Your task to perform on an android device: Clear the cart on target.com. Add usb-b to the cart on target.com, then select checkout. Image 0: 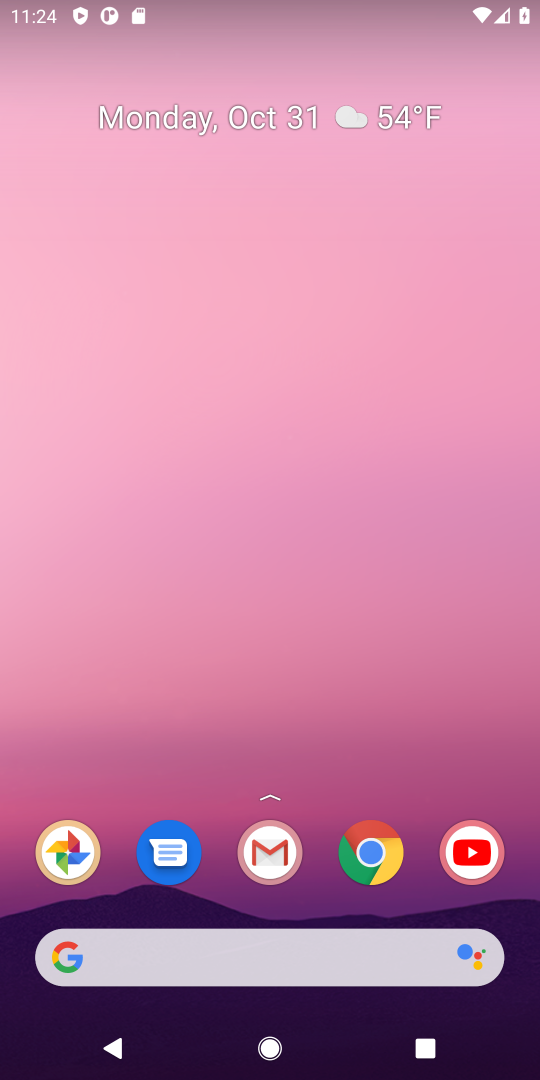
Step 0: click (386, 852)
Your task to perform on an android device: Clear the cart on target.com. Add usb-b to the cart on target.com, then select checkout. Image 1: 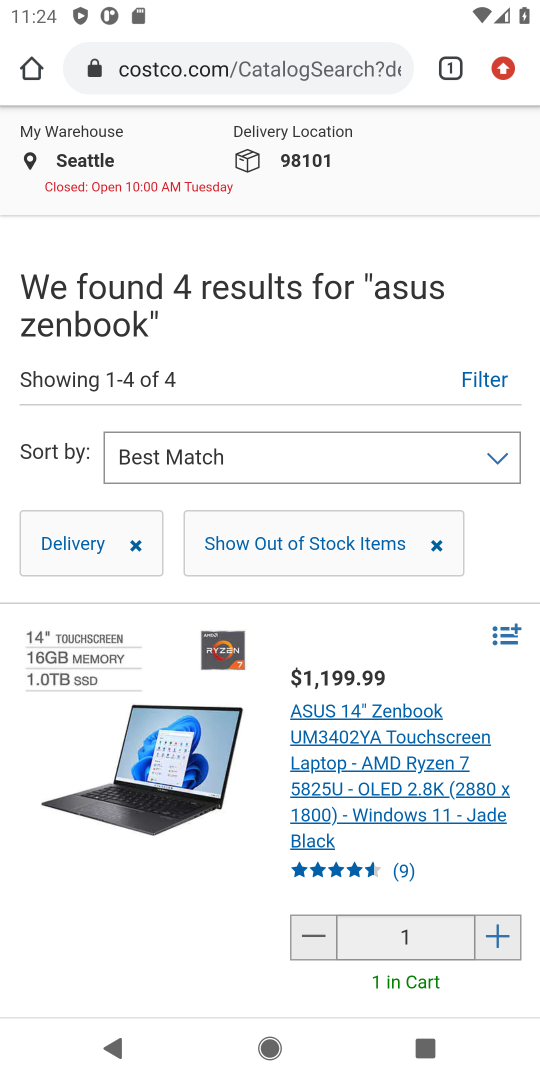
Step 1: click (268, 61)
Your task to perform on an android device: Clear the cart on target.com. Add usb-b to the cart on target.com, then select checkout. Image 2: 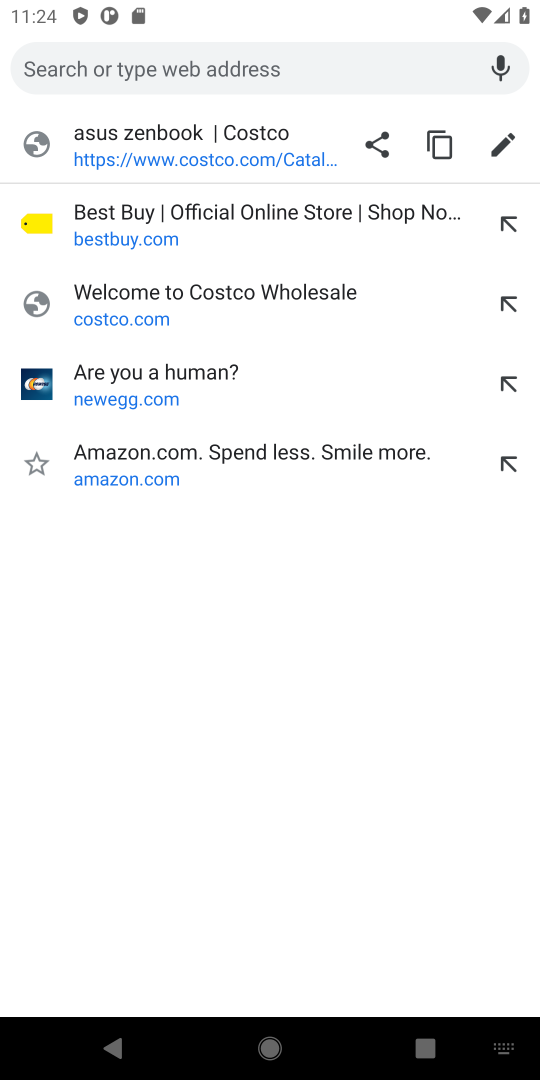
Step 2: type "target.com"
Your task to perform on an android device: Clear the cart on target.com. Add usb-b to the cart on target.com, then select checkout. Image 3: 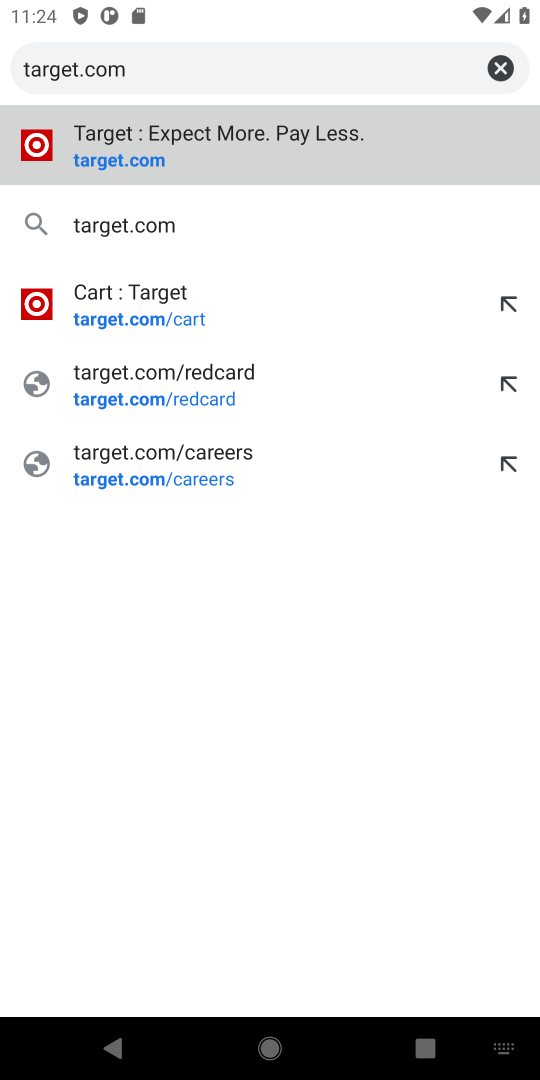
Step 3: press enter
Your task to perform on an android device: Clear the cart on target.com. Add usb-b to the cart on target.com, then select checkout. Image 4: 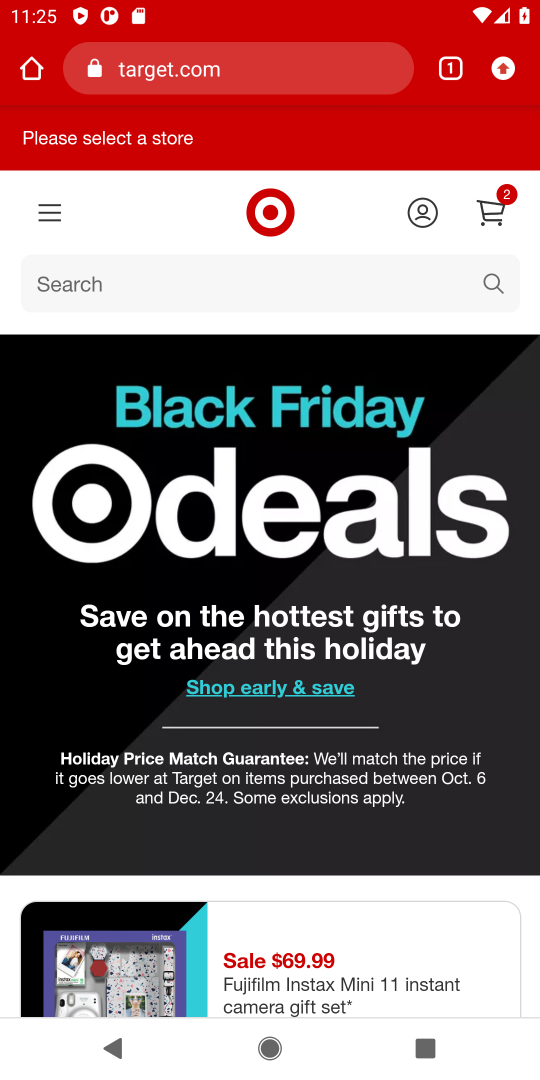
Step 4: click (206, 274)
Your task to perform on an android device: Clear the cart on target.com. Add usb-b to the cart on target.com, then select checkout. Image 5: 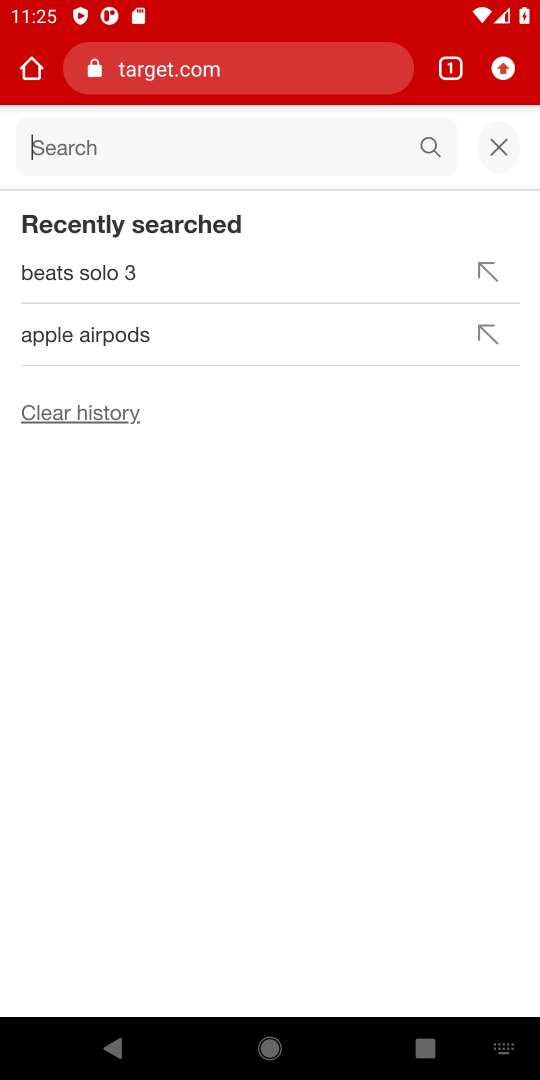
Step 5: type "usb-b"
Your task to perform on an android device: Clear the cart on target.com. Add usb-b to the cart on target.com, then select checkout. Image 6: 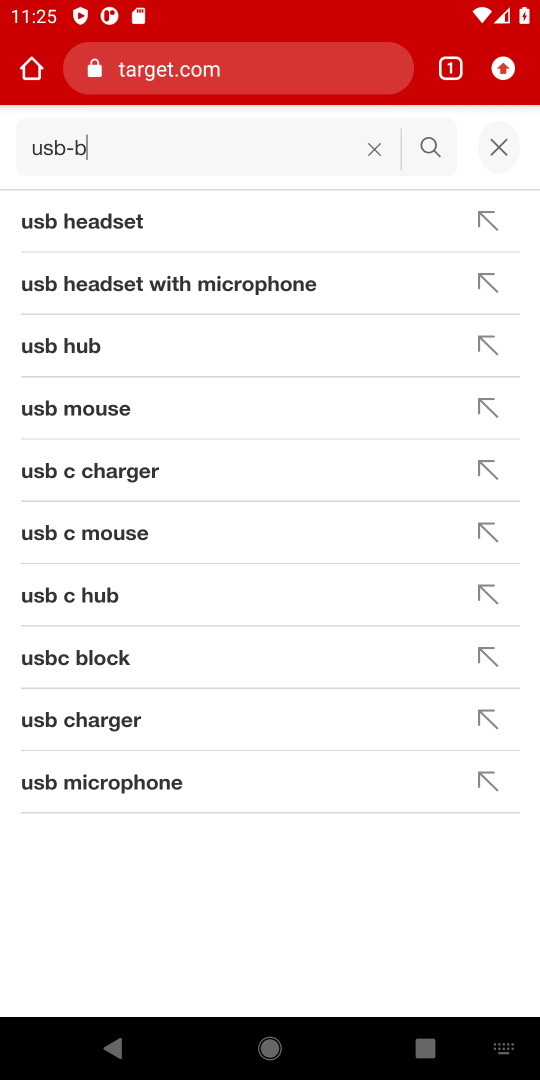
Step 6: type ""
Your task to perform on an android device: Clear the cart on target.com. Add usb-b to the cart on target.com, then select checkout. Image 7: 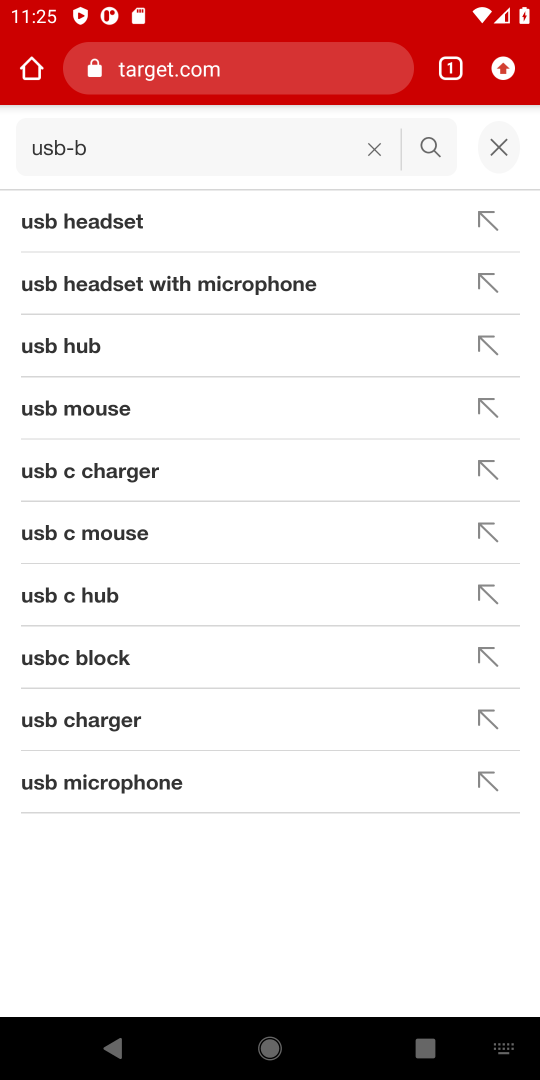
Step 7: press enter
Your task to perform on an android device: Clear the cart on target.com. Add usb-b to the cart on target.com, then select checkout. Image 8: 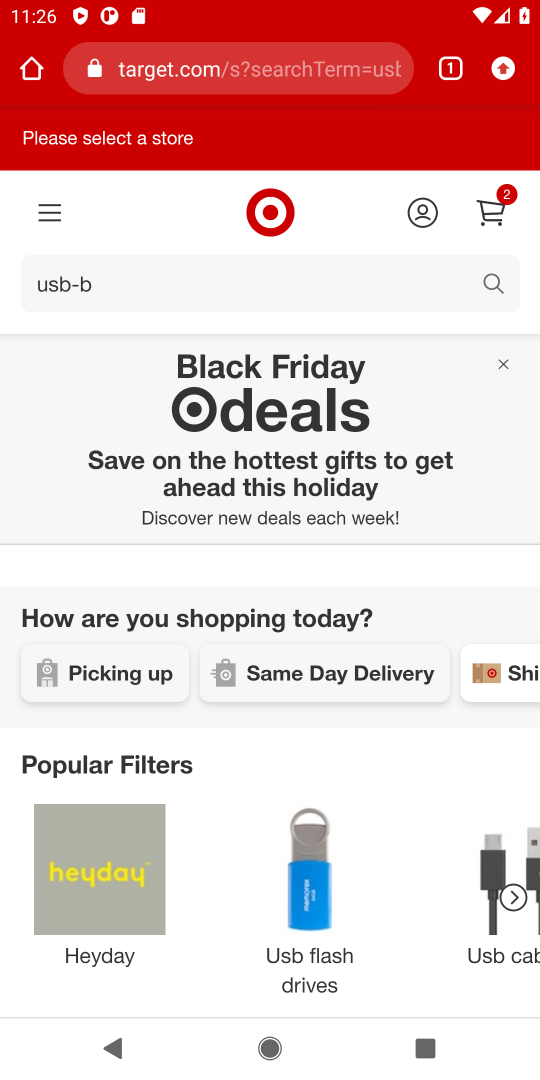
Step 8: drag from (298, 751) to (270, 254)
Your task to perform on an android device: Clear the cart on target.com. Add usb-b to the cart on target.com, then select checkout. Image 9: 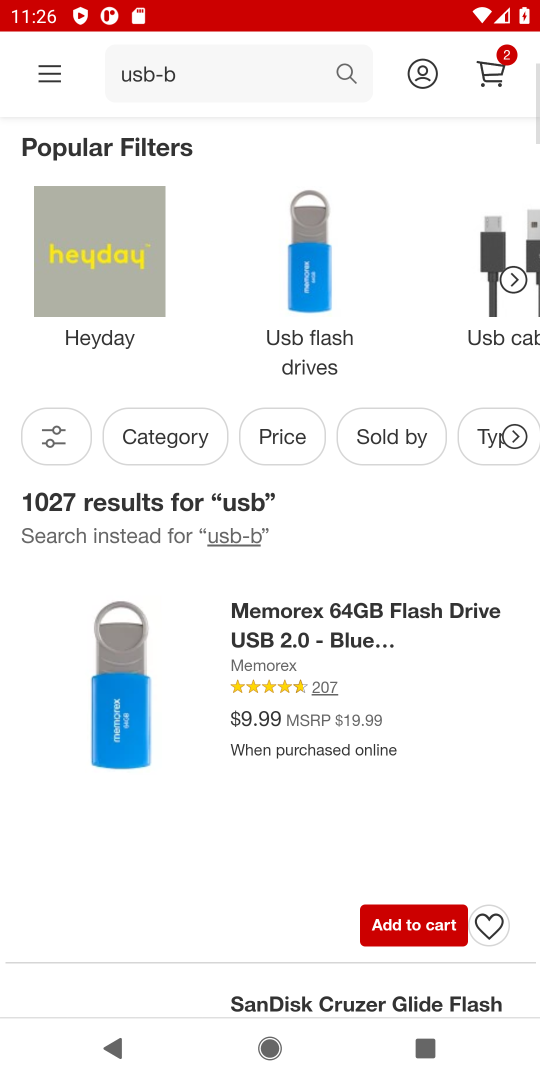
Step 9: drag from (345, 848) to (342, 662)
Your task to perform on an android device: Clear the cart on target.com. Add usb-b to the cart on target.com, then select checkout. Image 10: 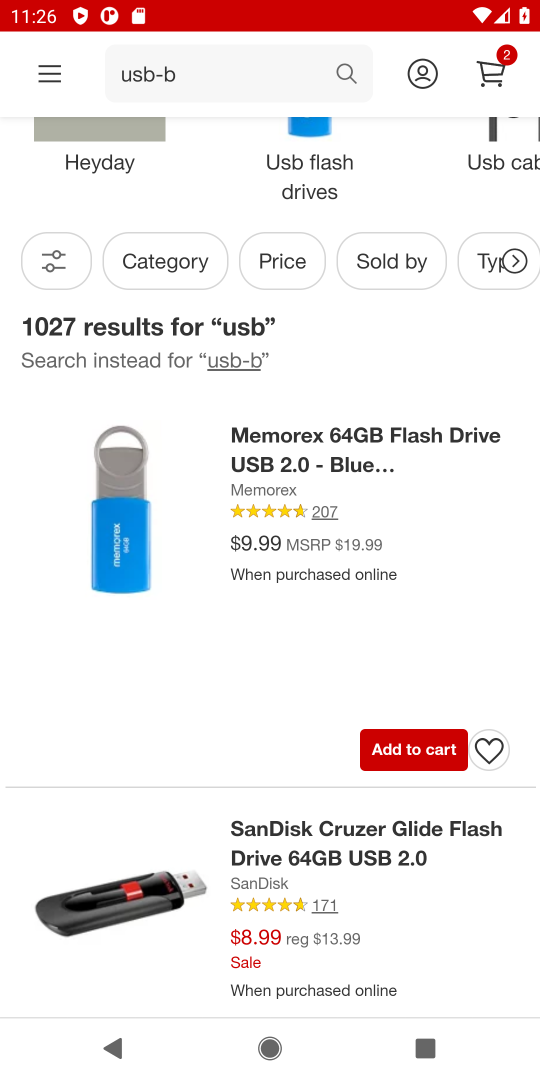
Step 10: drag from (303, 810) to (300, 40)
Your task to perform on an android device: Clear the cart on target.com. Add usb-b to the cart on target.com, then select checkout. Image 11: 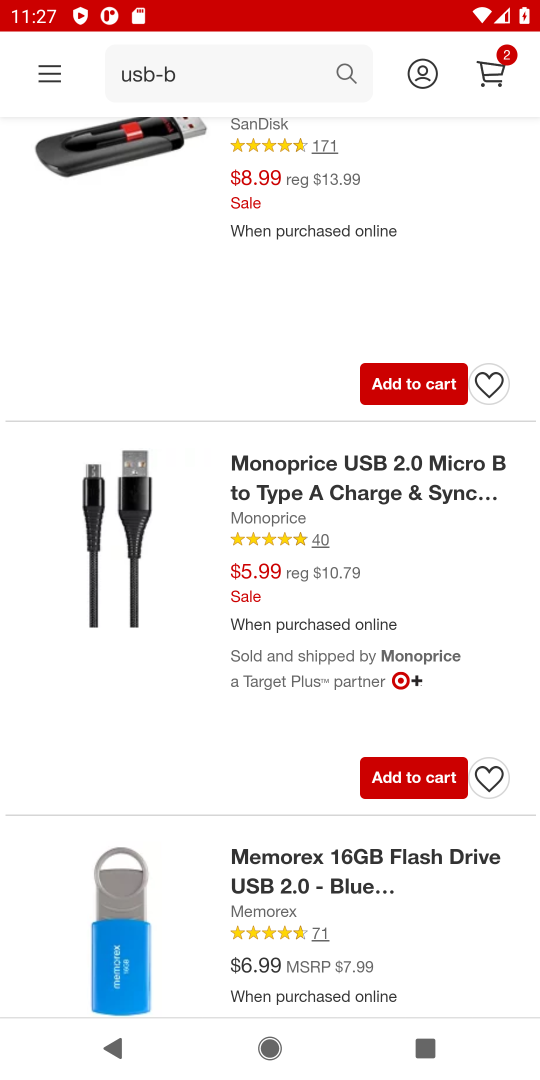
Step 11: click (429, 488)
Your task to perform on an android device: Clear the cart on target.com. Add usb-b to the cart on target.com, then select checkout. Image 12: 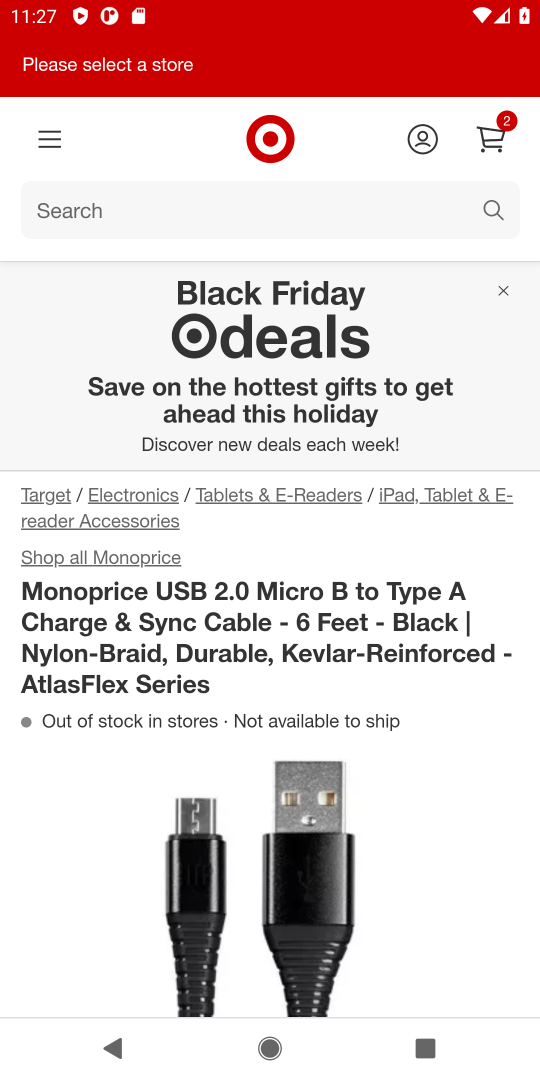
Step 12: drag from (308, 874) to (276, 245)
Your task to perform on an android device: Clear the cart on target.com. Add usb-b to the cart on target.com, then select checkout. Image 13: 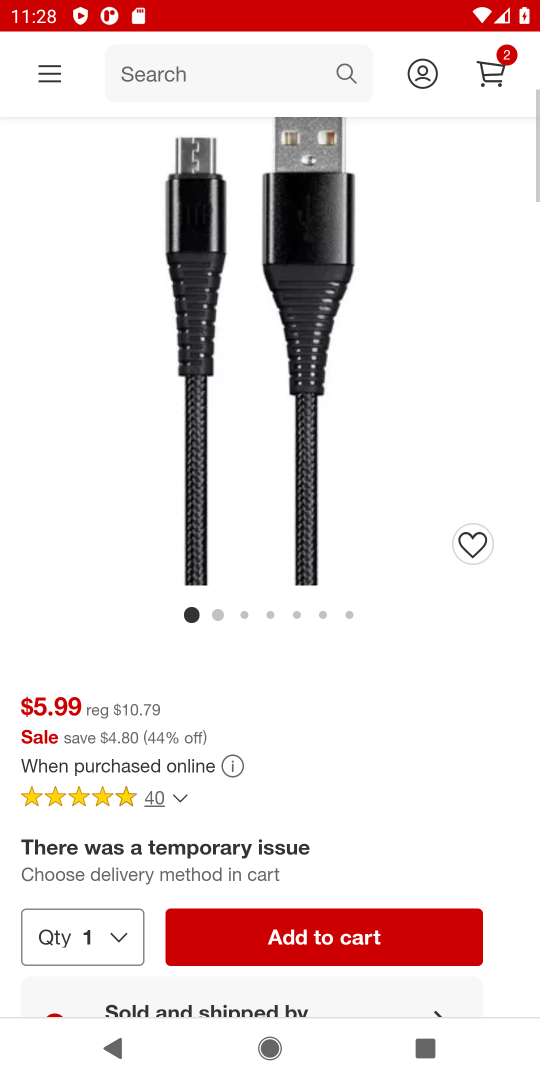
Step 13: click (274, 853)
Your task to perform on an android device: Clear the cart on target.com. Add usb-b to the cart on target.com, then select checkout. Image 14: 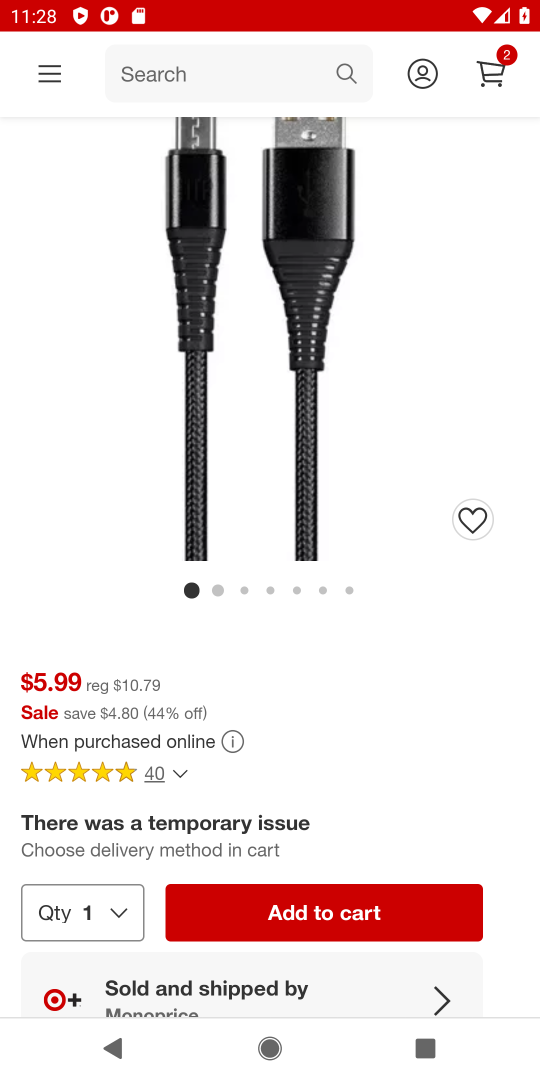
Step 14: click (370, 902)
Your task to perform on an android device: Clear the cart on target.com. Add usb-b to the cart on target.com, then select checkout. Image 15: 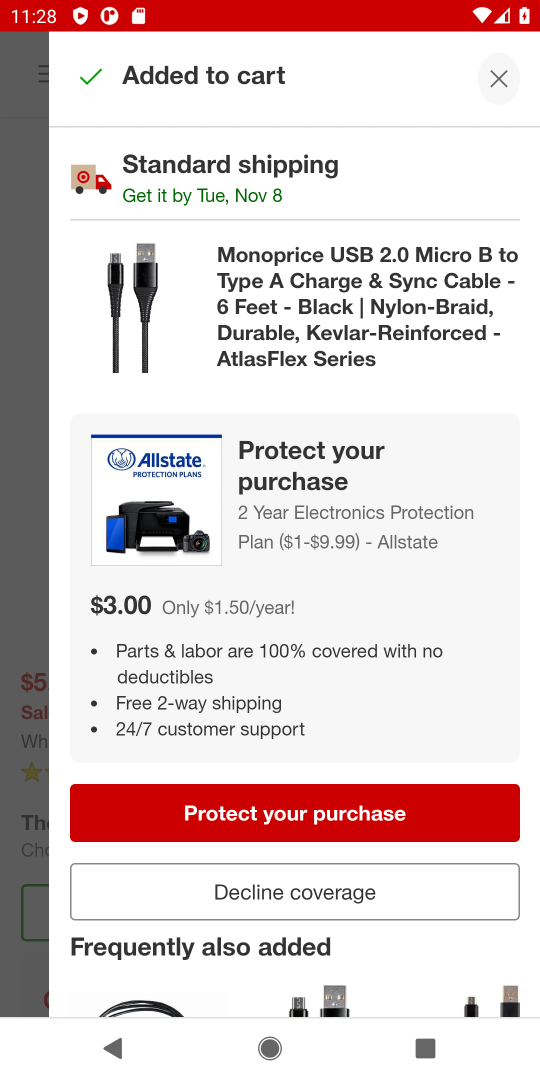
Step 15: click (348, 891)
Your task to perform on an android device: Clear the cart on target.com. Add usb-b to the cart on target.com, then select checkout. Image 16: 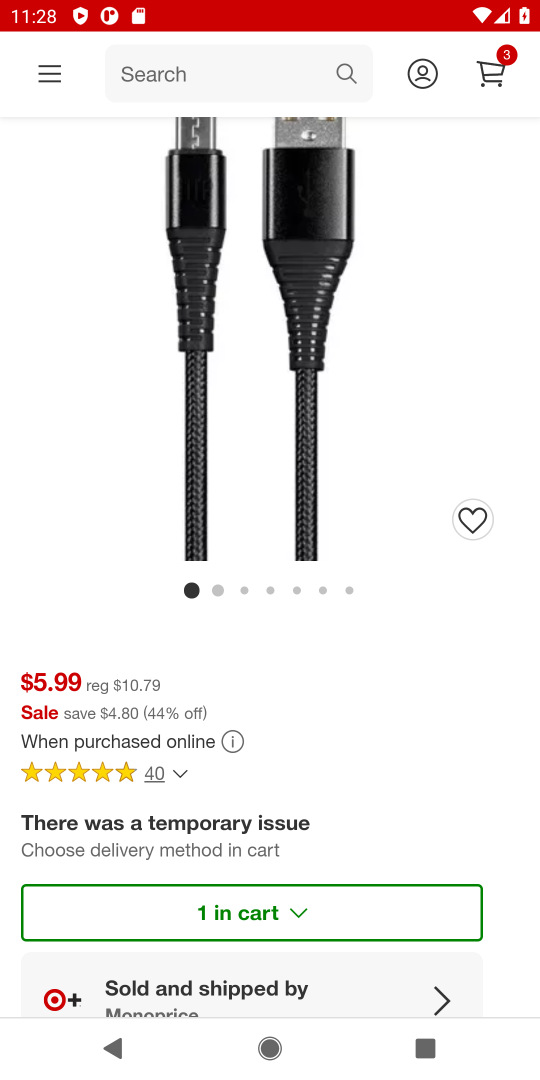
Step 16: task complete